Your task to perform on an android device: open app "Gboard" Image 0: 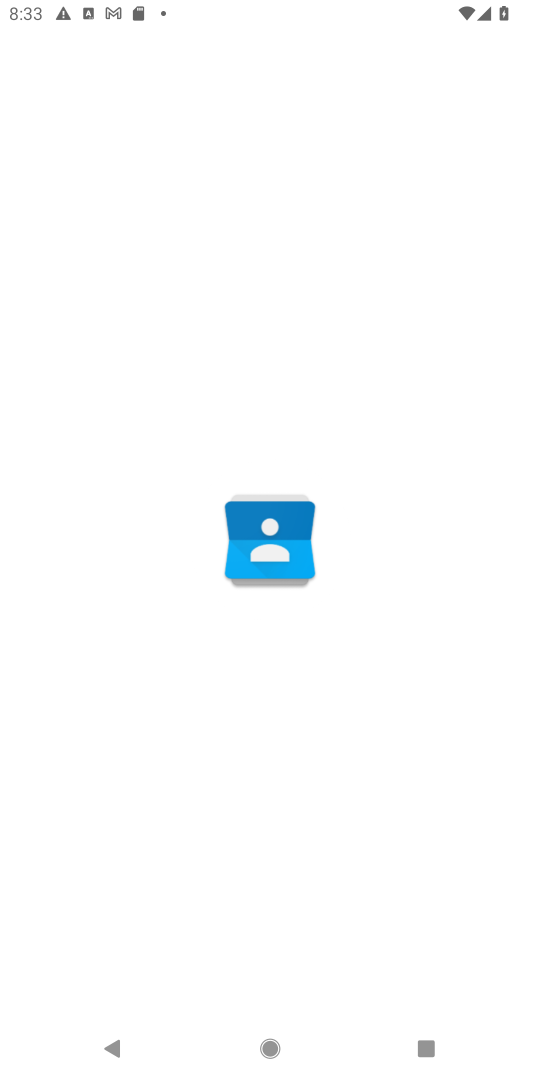
Step 0: press home button
Your task to perform on an android device: open app "Gboard" Image 1: 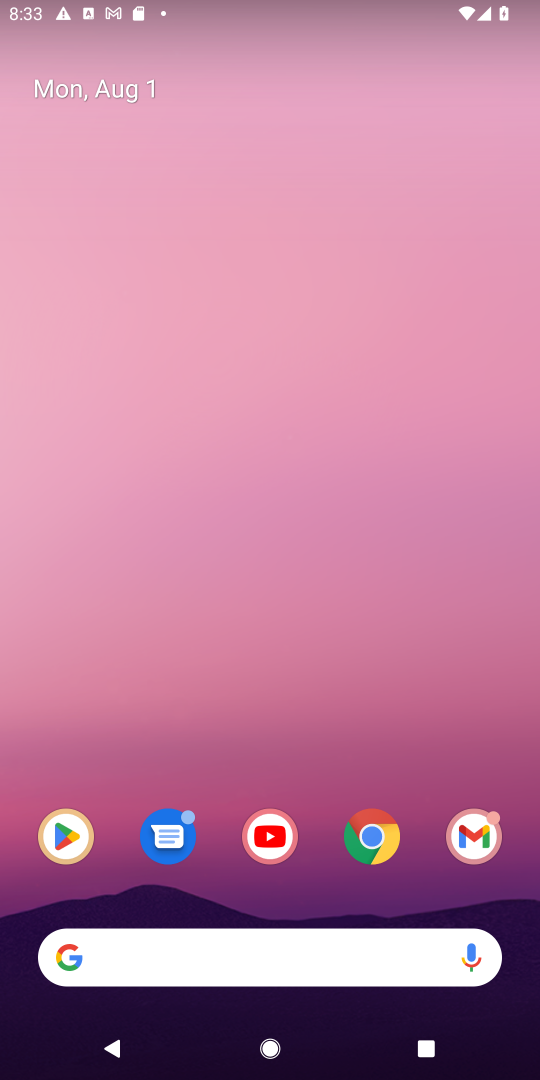
Step 1: click (62, 829)
Your task to perform on an android device: open app "Gboard" Image 2: 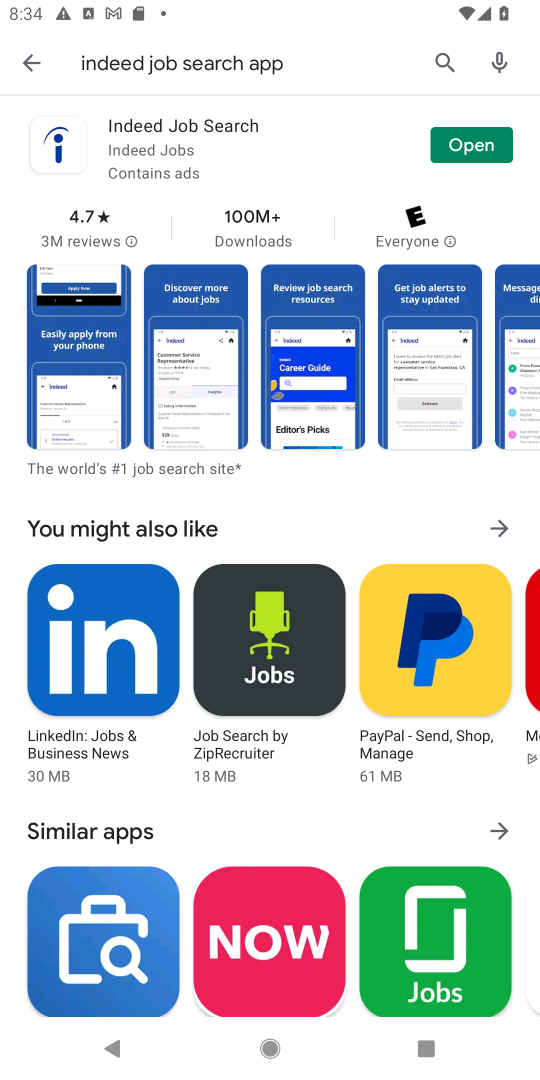
Step 2: click (445, 51)
Your task to perform on an android device: open app "Gboard" Image 3: 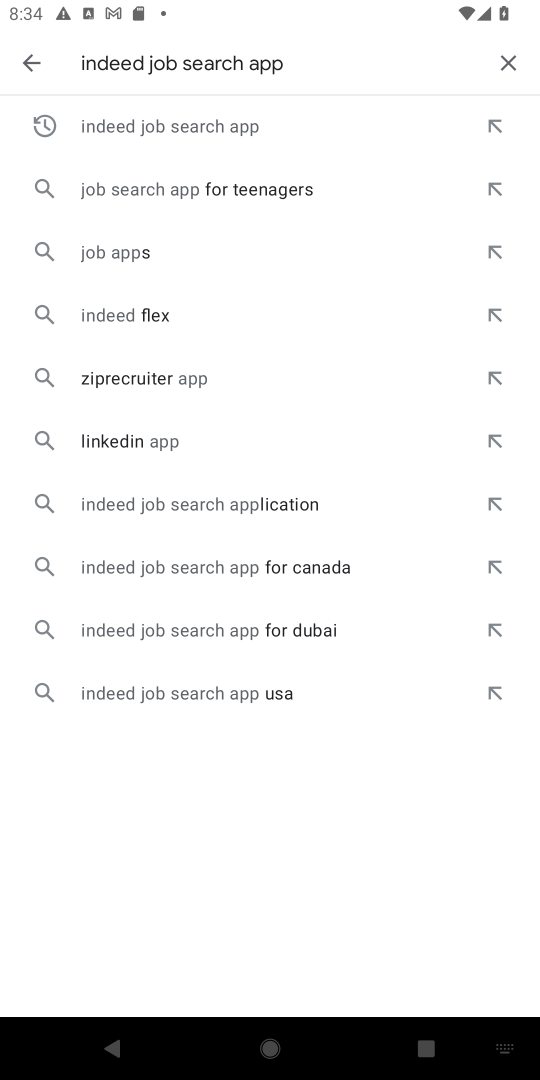
Step 3: click (510, 53)
Your task to perform on an android device: open app "Gboard" Image 4: 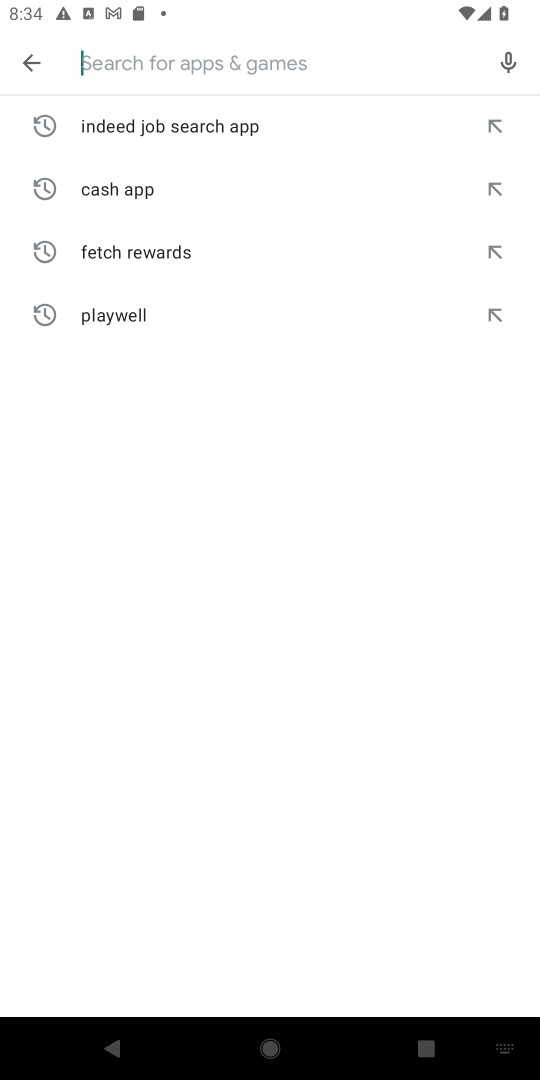
Step 4: type "Gboard"
Your task to perform on an android device: open app "Gboard" Image 5: 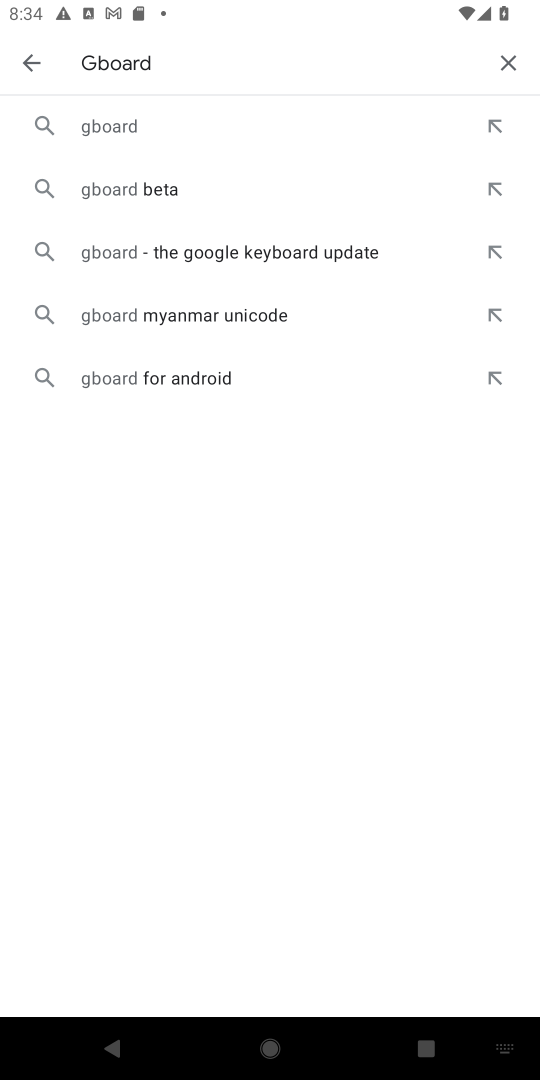
Step 5: click (112, 121)
Your task to perform on an android device: open app "Gboard" Image 6: 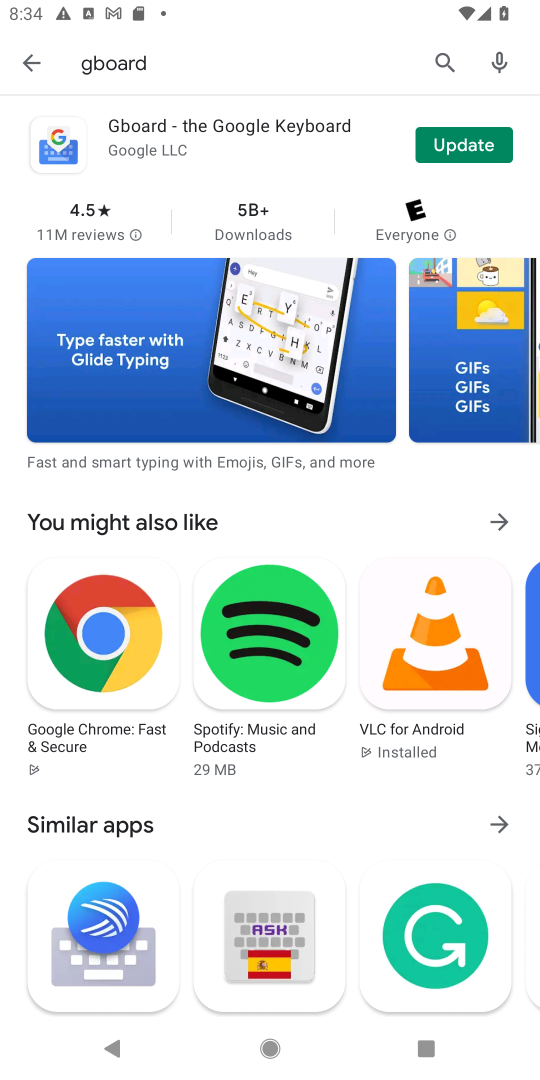
Step 6: click (140, 140)
Your task to perform on an android device: open app "Gboard" Image 7: 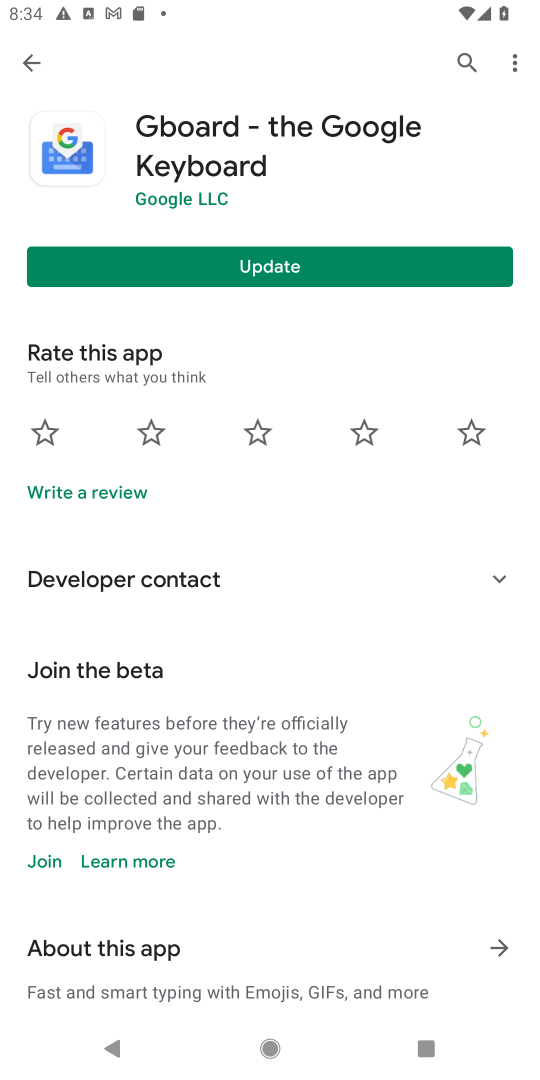
Step 7: task complete